Your task to perform on an android device: Go to Yahoo.com Image 0: 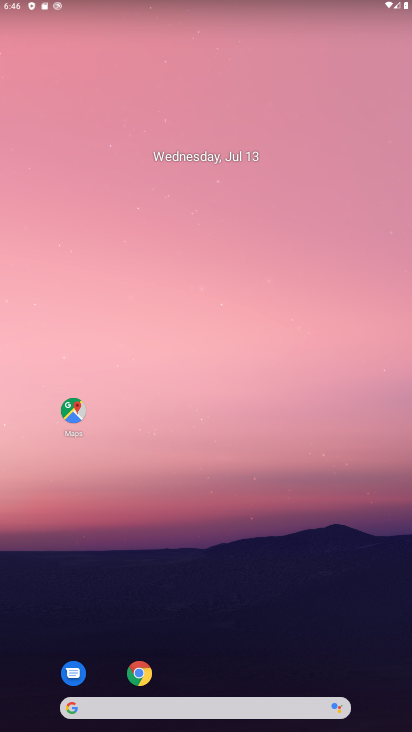
Step 0: drag from (203, 658) to (231, 33)
Your task to perform on an android device: Go to Yahoo.com Image 1: 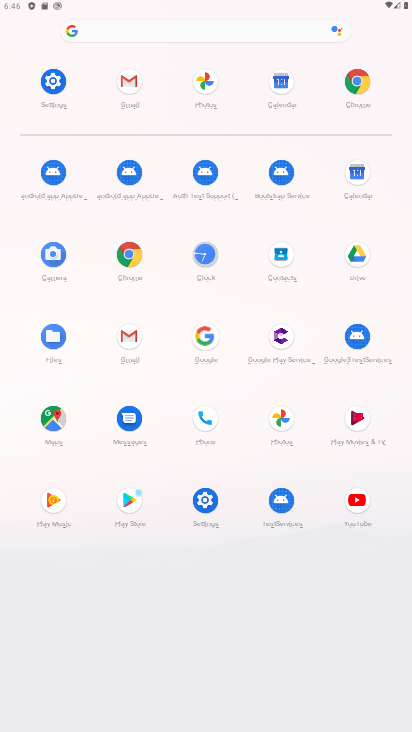
Step 1: click (369, 80)
Your task to perform on an android device: Go to Yahoo.com Image 2: 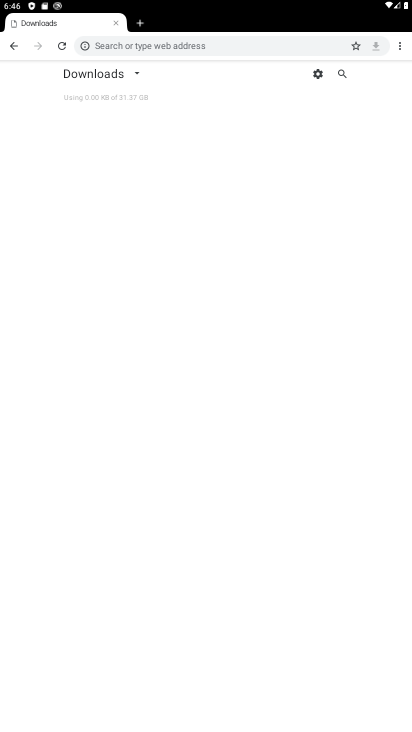
Step 2: click (19, 52)
Your task to perform on an android device: Go to Yahoo.com Image 3: 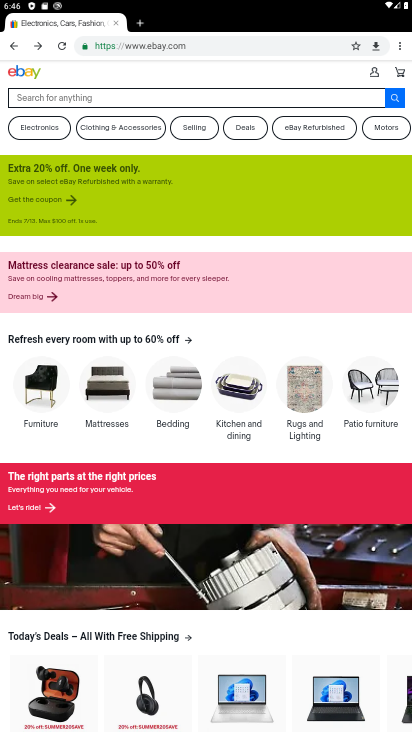
Step 3: click (19, 51)
Your task to perform on an android device: Go to Yahoo.com Image 4: 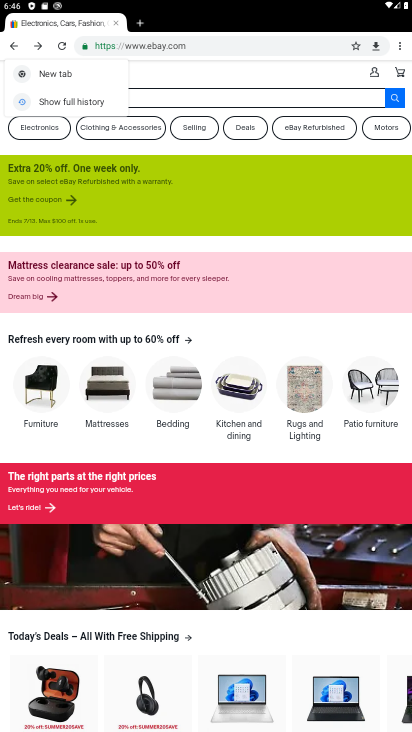
Step 4: click (14, 47)
Your task to perform on an android device: Go to Yahoo.com Image 5: 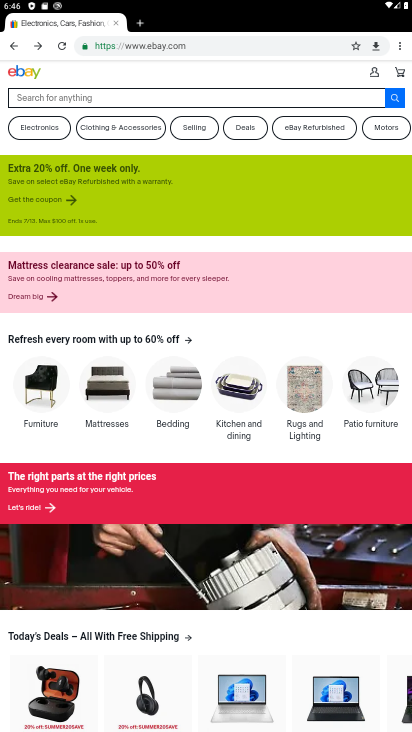
Step 5: click (14, 47)
Your task to perform on an android device: Go to Yahoo.com Image 6: 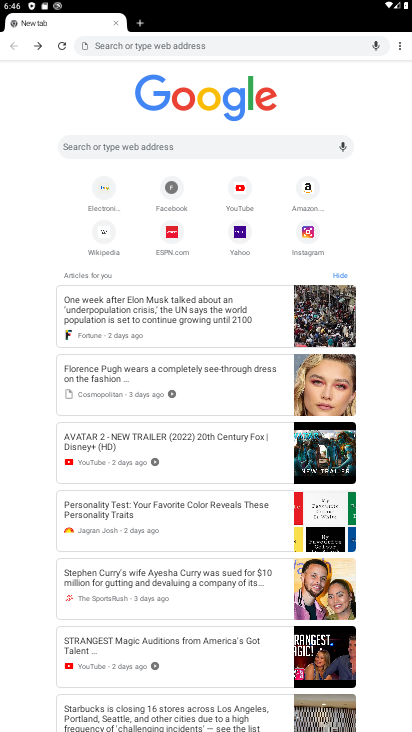
Step 6: click (247, 236)
Your task to perform on an android device: Go to Yahoo.com Image 7: 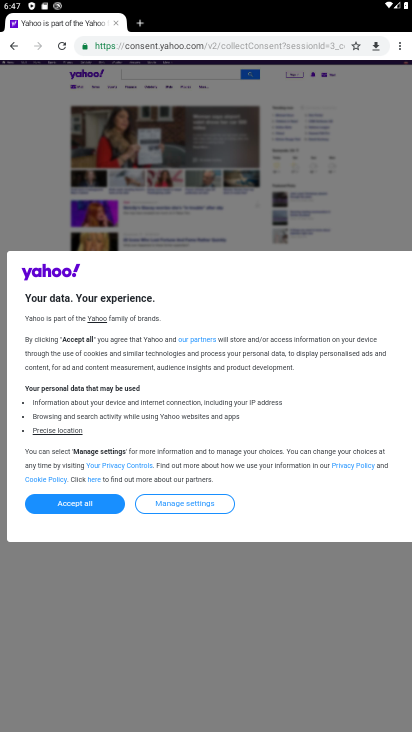
Step 7: task complete